Your task to perform on an android device: Show the shopping cart on ebay. Add "usb-a to usb-b" to the cart on ebay Image 0: 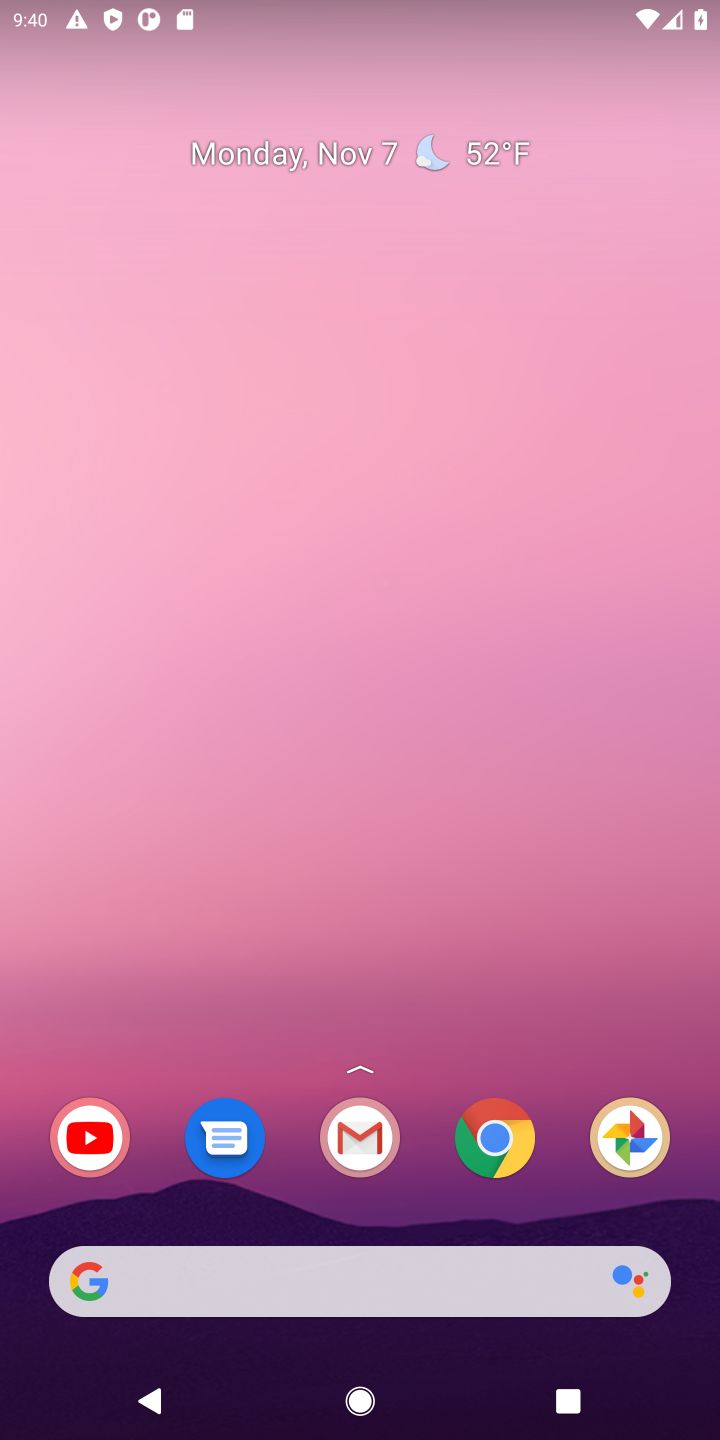
Step 0: click (504, 1153)
Your task to perform on an android device: Show the shopping cart on ebay. Add "usb-a to usb-b" to the cart on ebay Image 1: 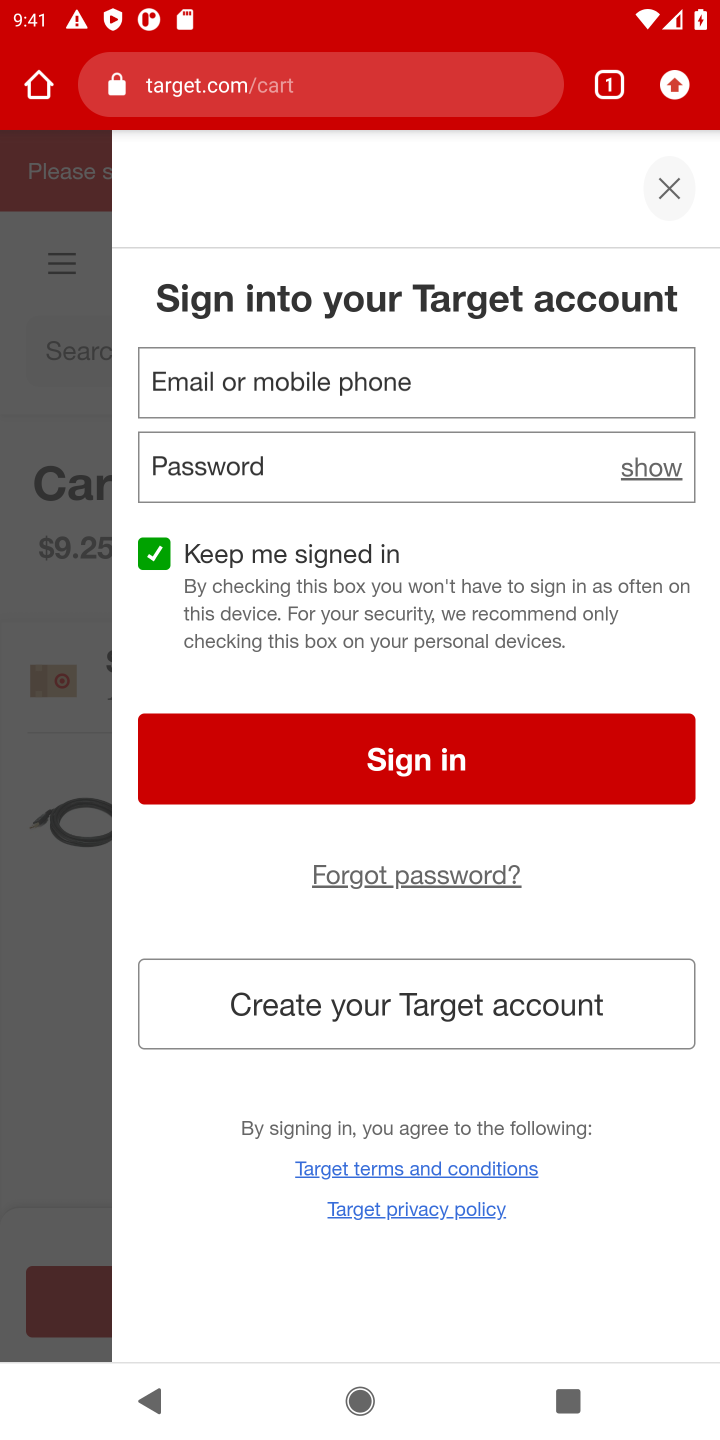
Step 1: click (236, 79)
Your task to perform on an android device: Show the shopping cart on ebay. Add "usb-a to usb-b" to the cart on ebay Image 2: 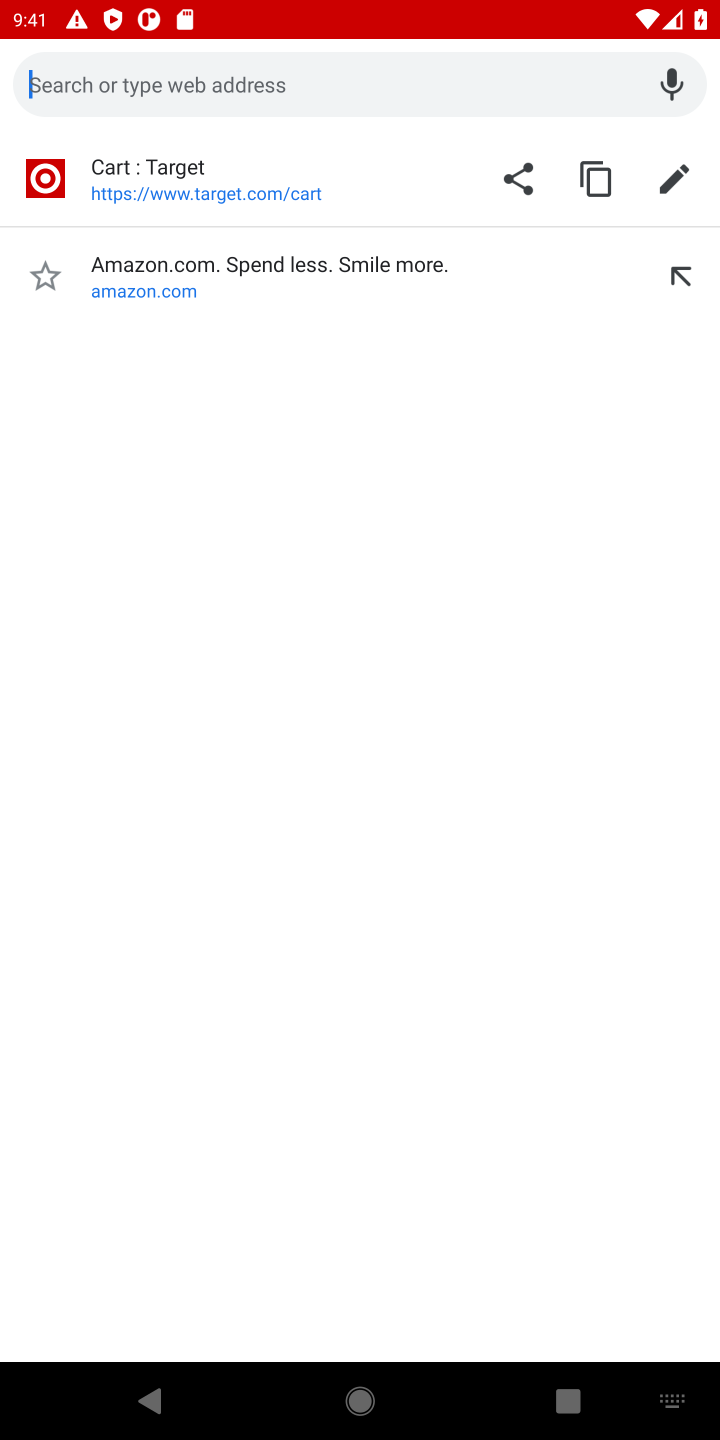
Step 2: type "ebay"
Your task to perform on an android device: Show the shopping cart on ebay. Add "usb-a to usb-b" to the cart on ebay Image 3: 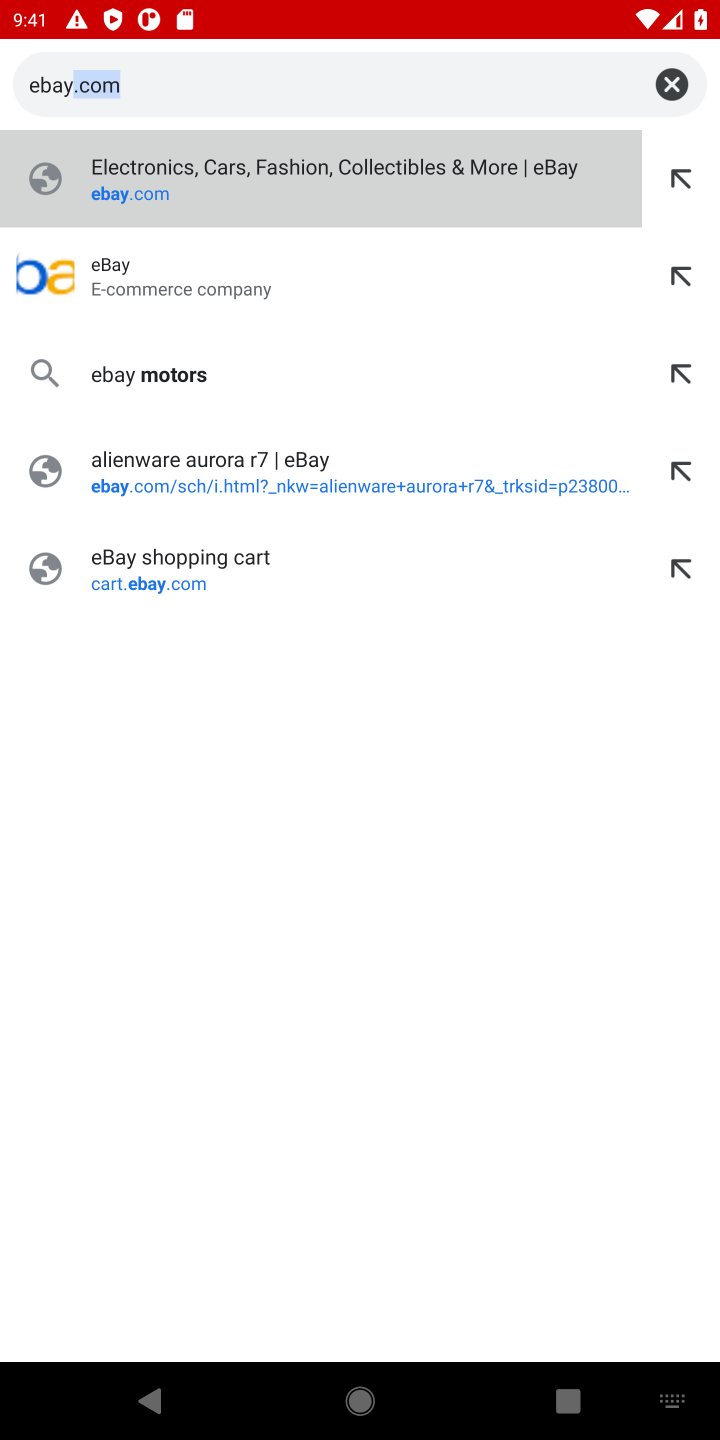
Step 3: type ""
Your task to perform on an android device: Show the shopping cart on ebay. Add "usb-a to usb-b" to the cart on ebay Image 4: 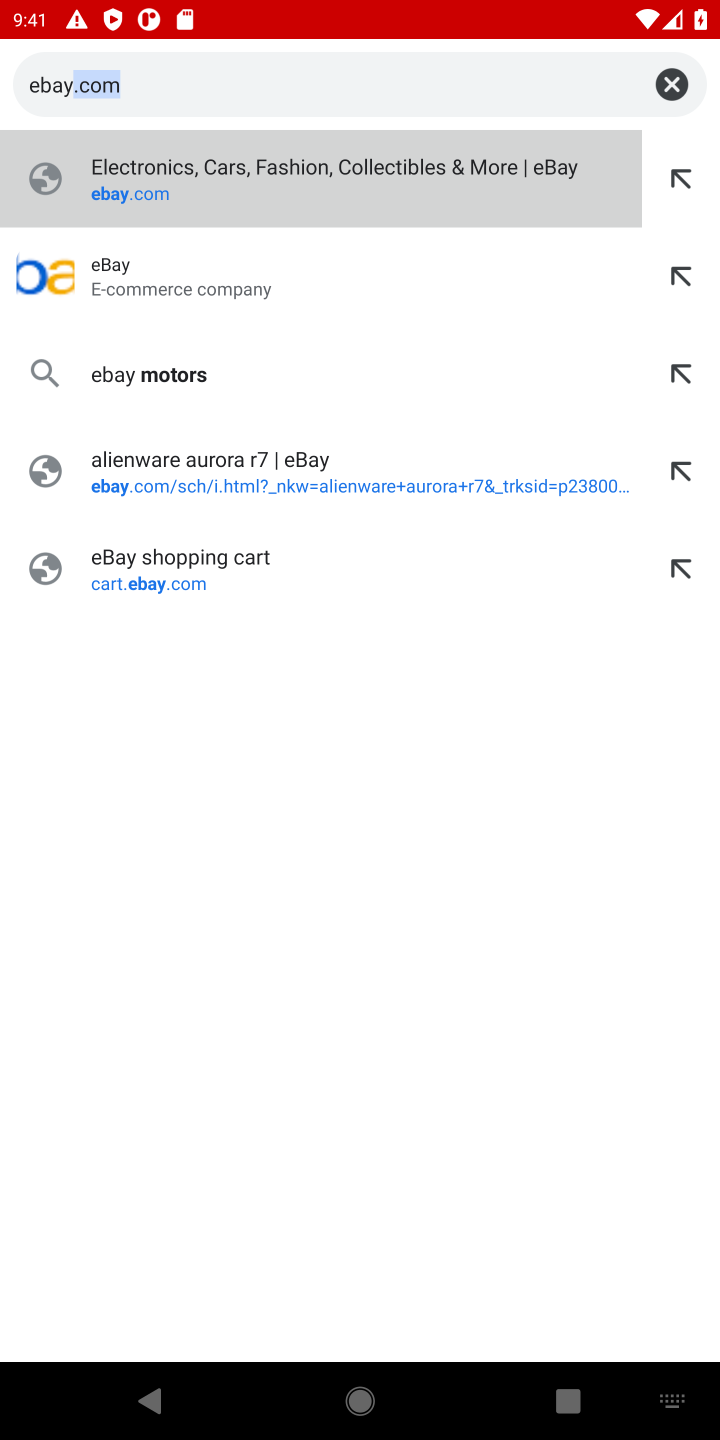
Step 4: click (100, 267)
Your task to perform on an android device: Show the shopping cart on ebay. Add "usb-a to usb-b" to the cart on ebay Image 5: 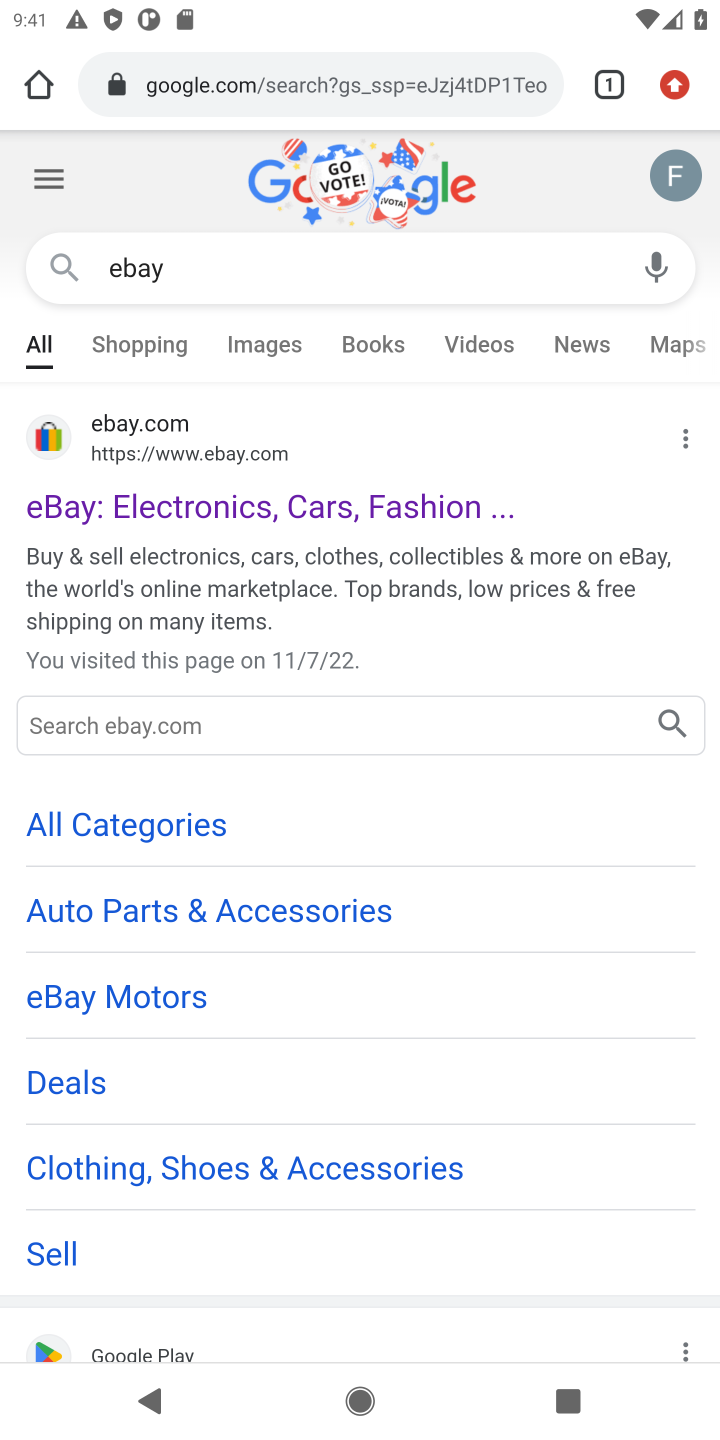
Step 5: click (193, 514)
Your task to perform on an android device: Show the shopping cart on ebay. Add "usb-a to usb-b" to the cart on ebay Image 6: 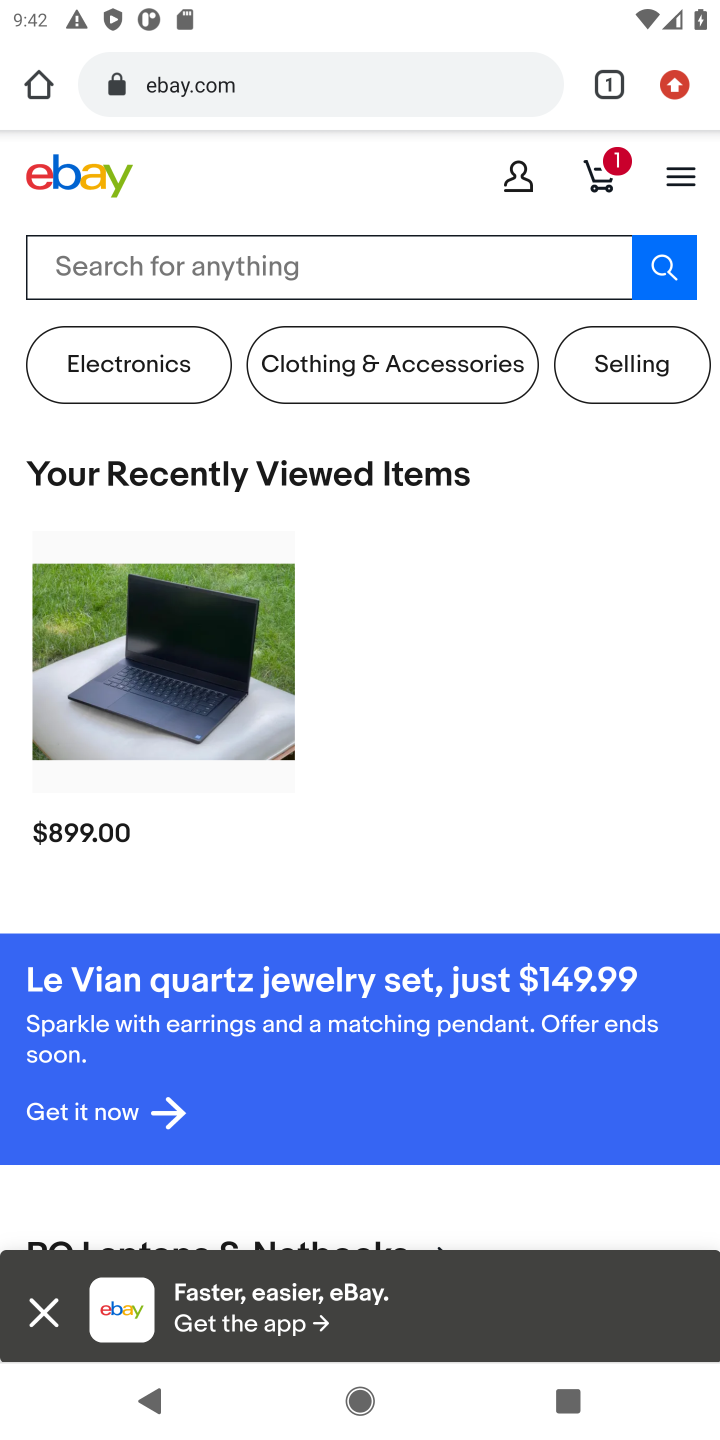
Step 6: drag from (75, 905) to (125, 842)
Your task to perform on an android device: Show the shopping cart on ebay. Add "usb-a to usb-b" to the cart on ebay Image 7: 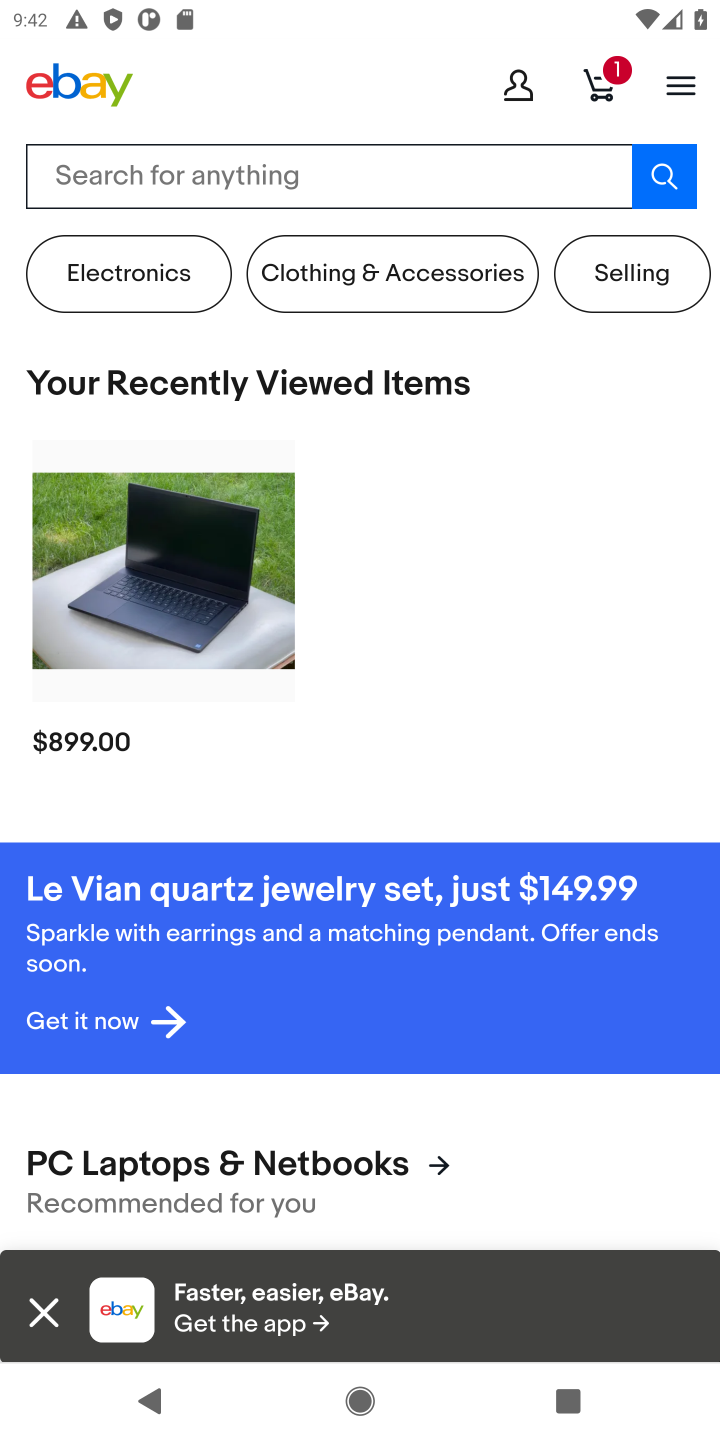
Step 7: click (248, 175)
Your task to perform on an android device: Show the shopping cart on ebay. Add "usb-a to usb-b" to the cart on ebay Image 8: 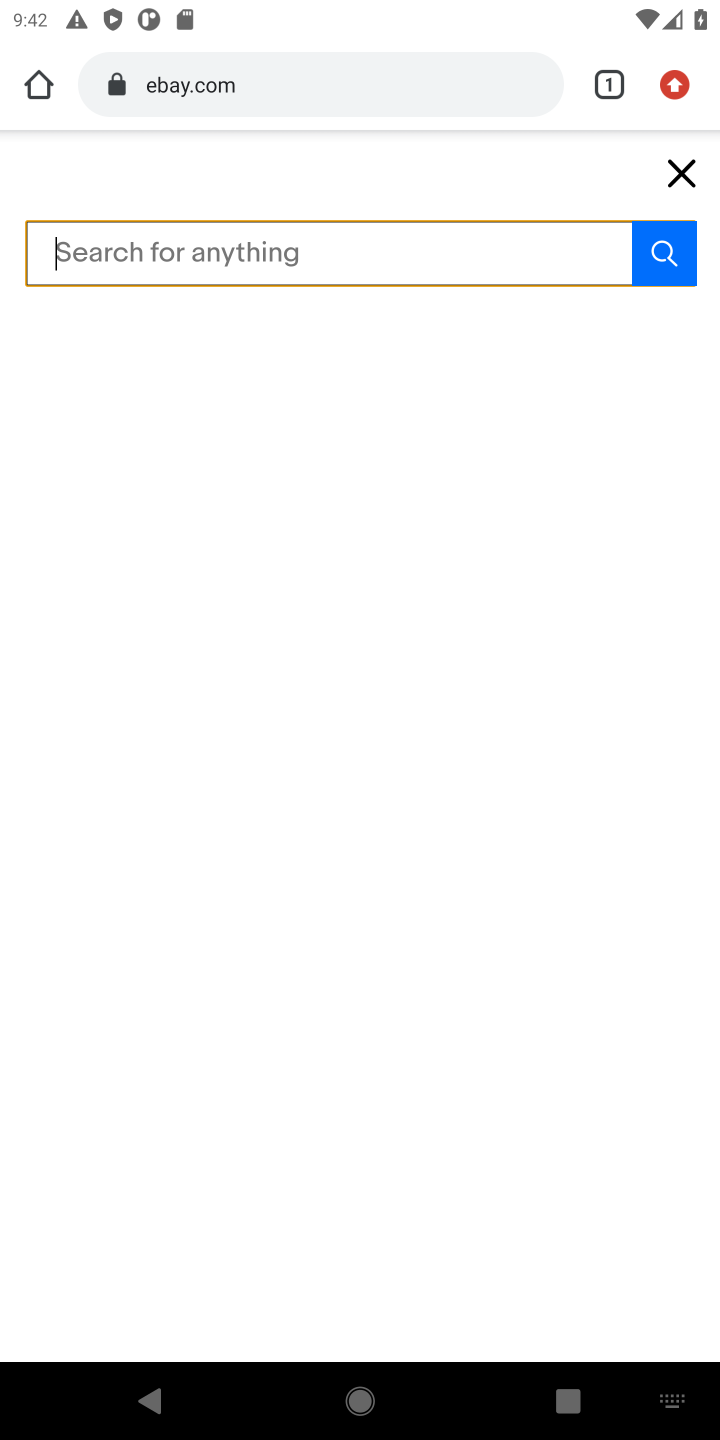
Step 8: type "usb - a to usb b "
Your task to perform on an android device: Show the shopping cart on ebay. Add "usb-a to usb-b" to the cart on ebay Image 9: 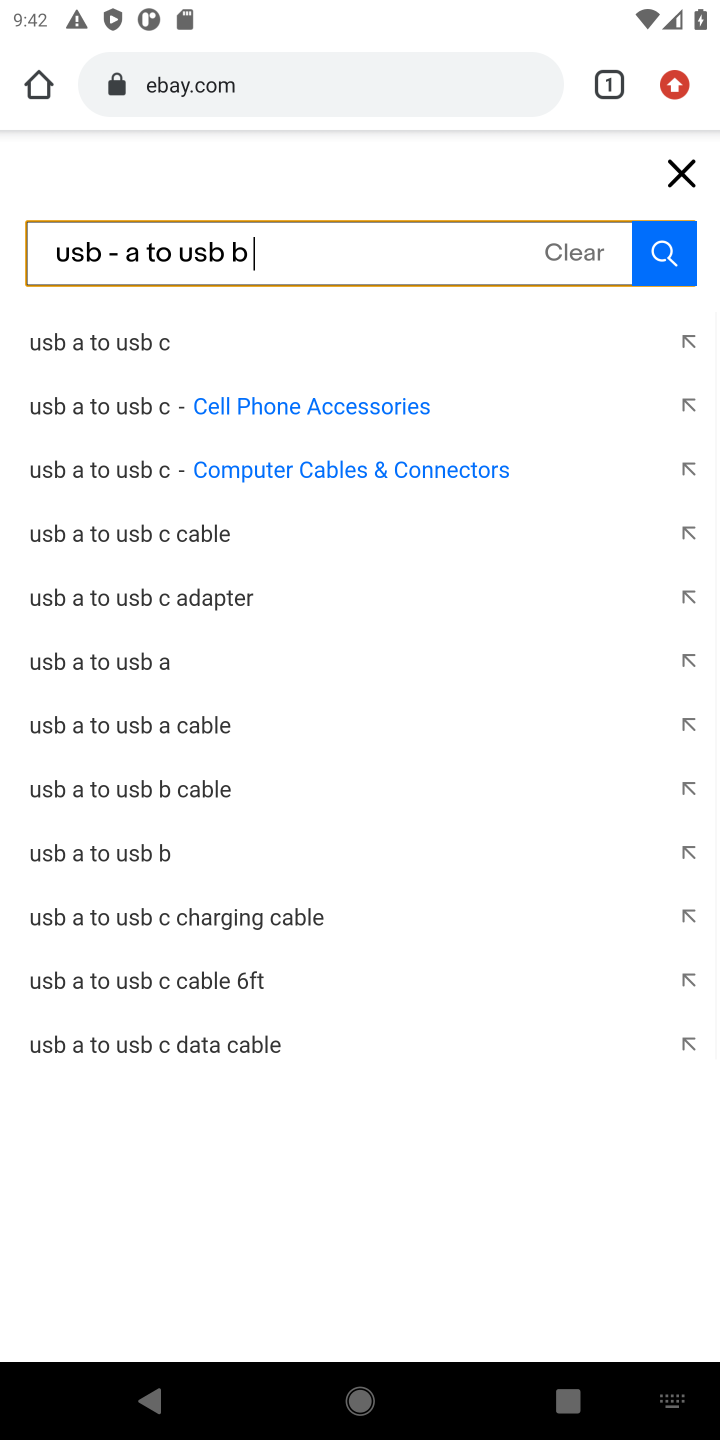
Step 9: type ""
Your task to perform on an android device: Show the shopping cart on ebay. Add "usb-a to usb-b" to the cart on ebay Image 10: 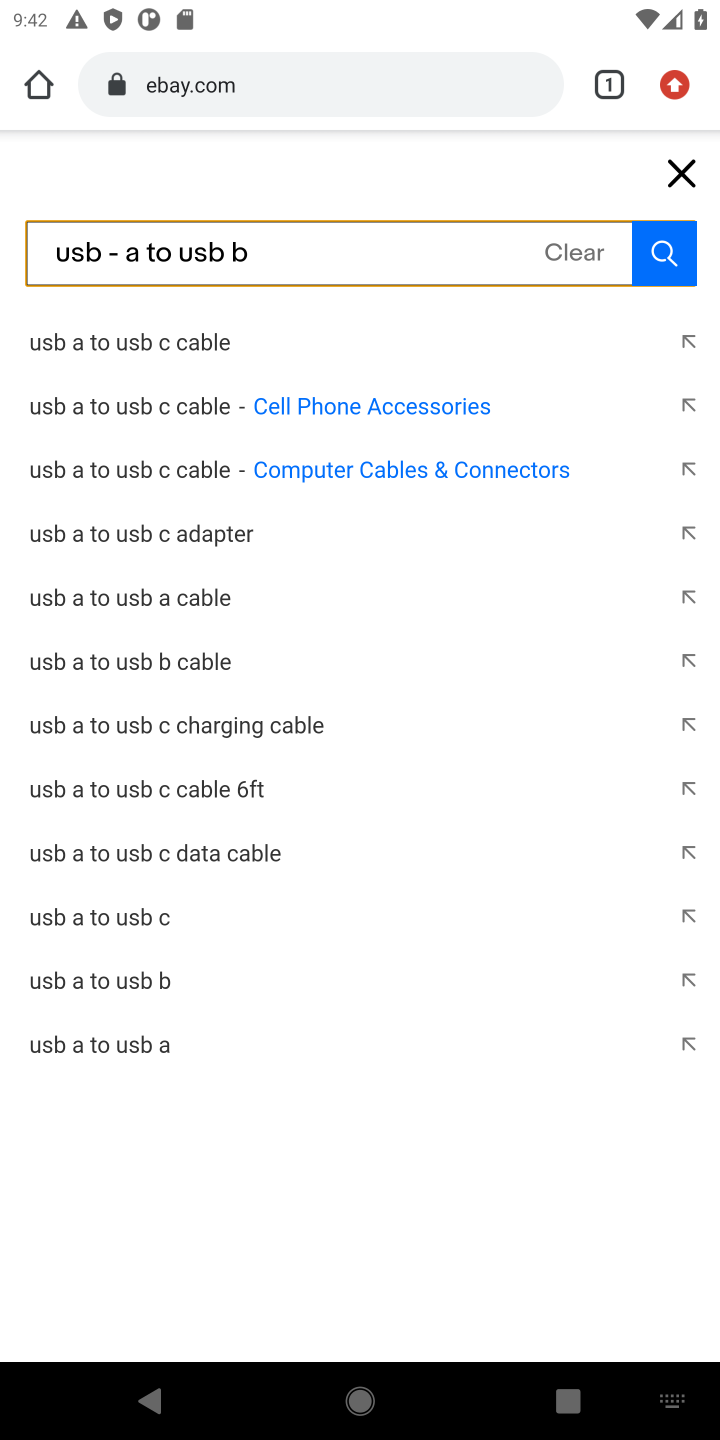
Step 10: click (95, 341)
Your task to perform on an android device: Show the shopping cart on ebay. Add "usb-a to usb-b" to the cart on ebay Image 11: 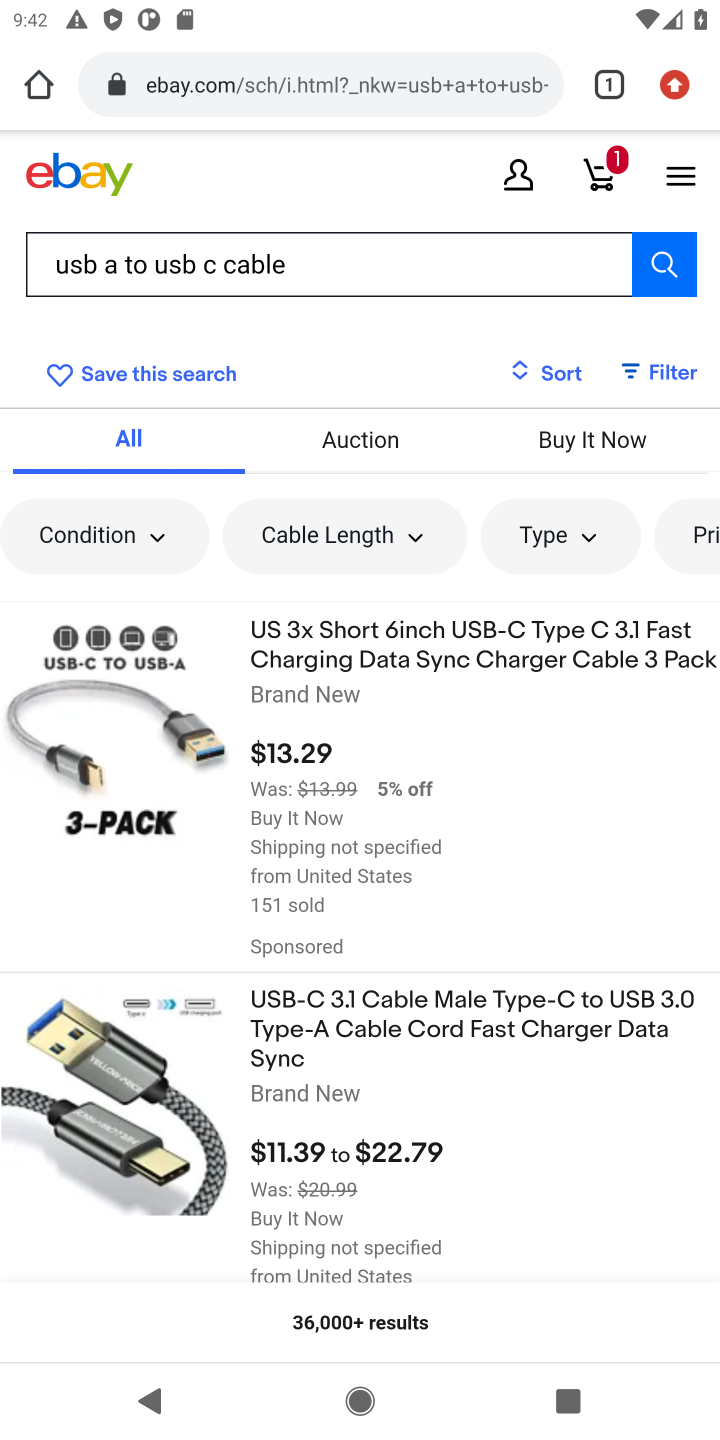
Step 11: click (411, 1012)
Your task to perform on an android device: Show the shopping cart on ebay. Add "usb-a to usb-b" to the cart on ebay Image 12: 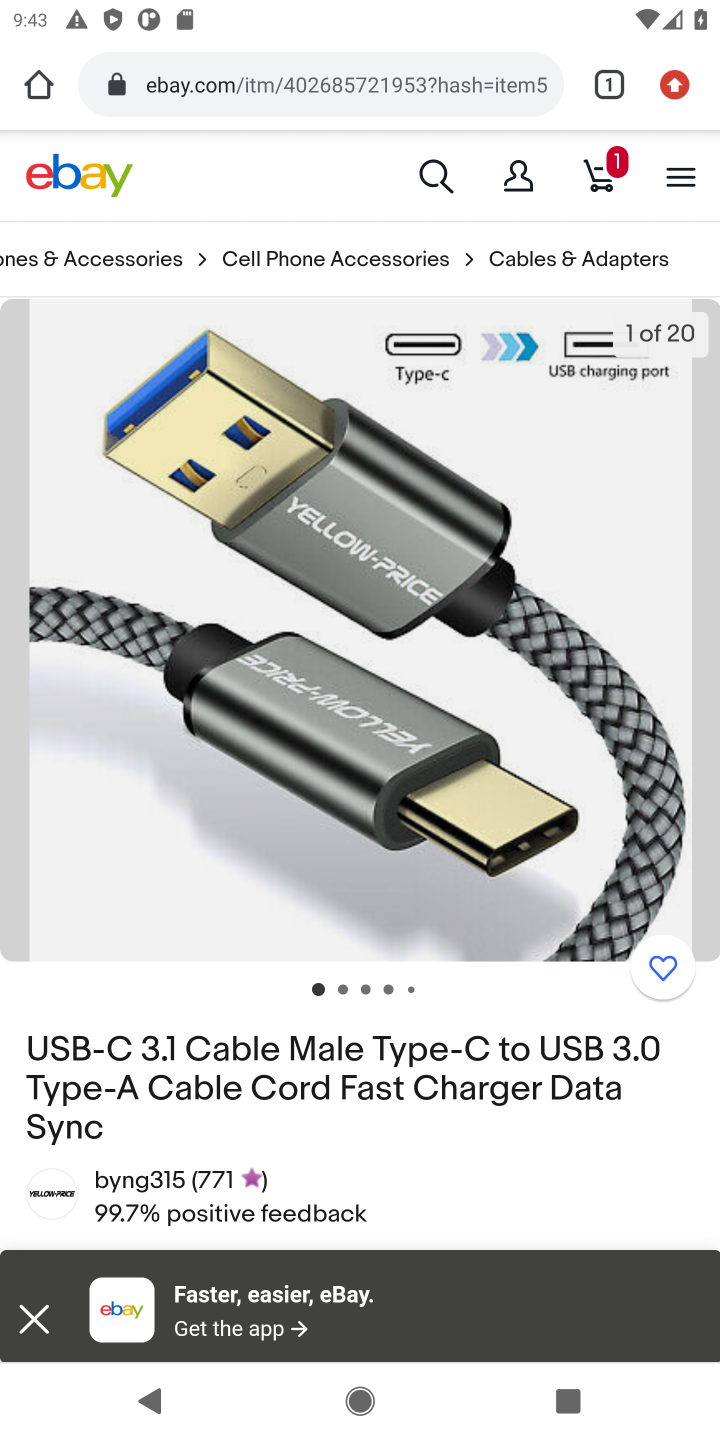
Step 12: click (38, 1330)
Your task to perform on an android device: Show the shopping cart on ebay. Add "usb-a to usb-b" to the cart on ebay Image 13: 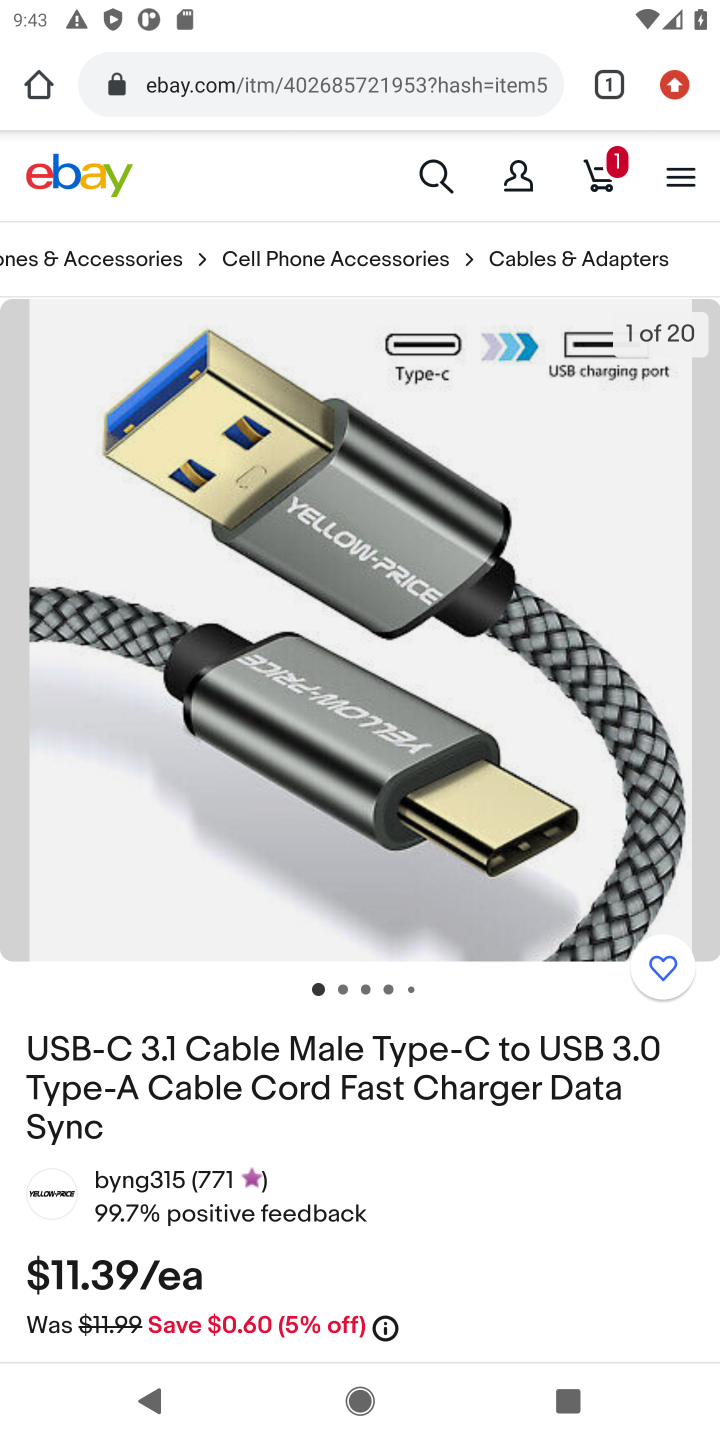
Step 13: drag from (276, 972) to (299, 335)
Your task to perform on an android device: Show the shopping cart on ebay. Add "usb-a to usb-b" to the cart on ebay Image 14: 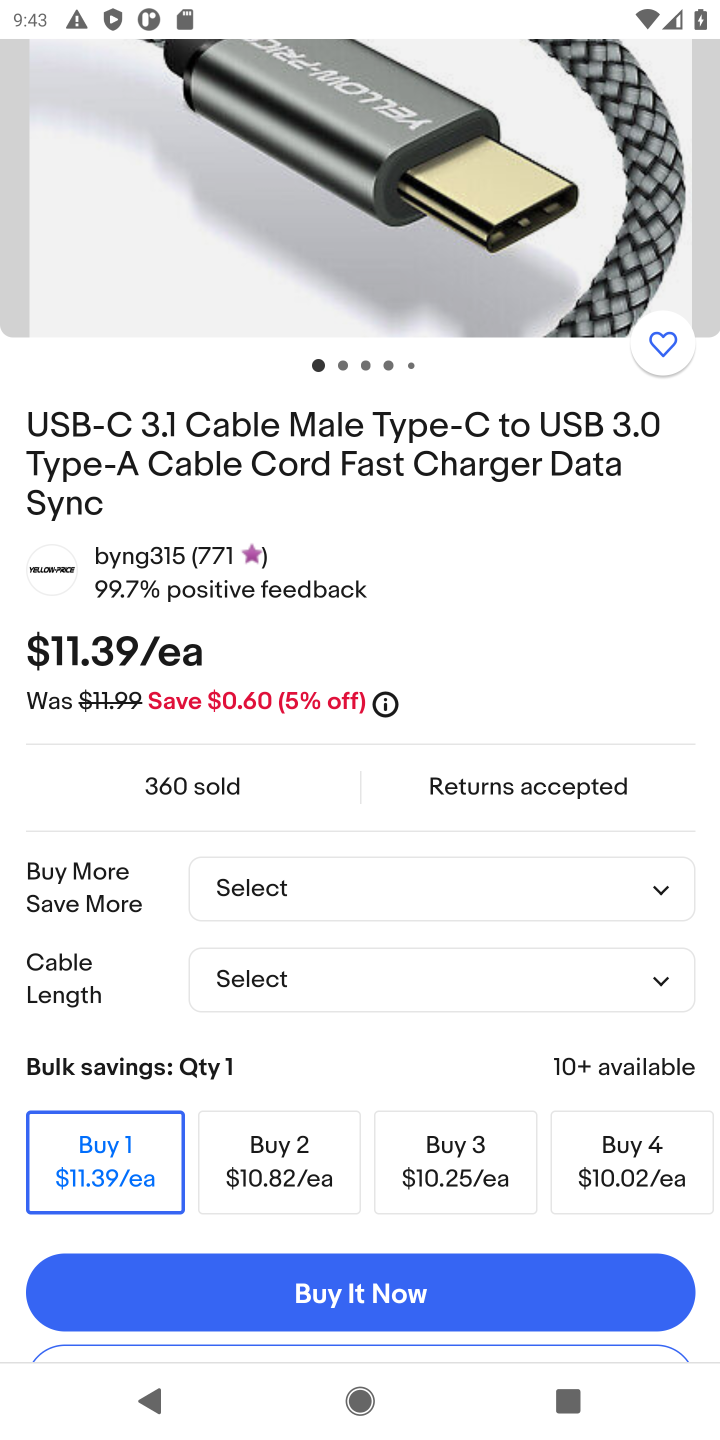
Step 14: drag from (313, 1096) to (361, 658)
Your task to perform on an android device: Show the shopping cart on ebay. Add "usb-a to usb-b" to the cart on ebay Image 15: 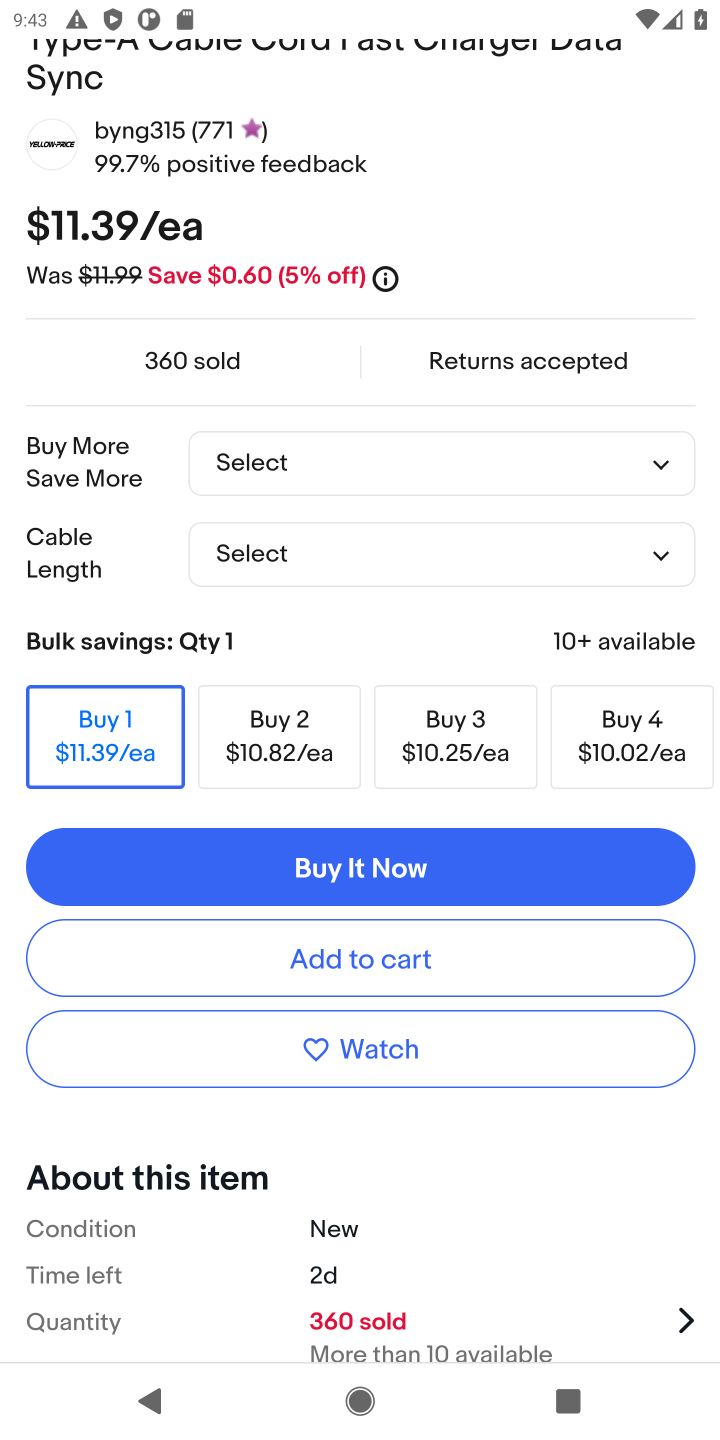
Step 15: click (353, 964)
Your task to perform on an android device: Show the shopping cart on ebay. Add "usb-a to usb-b" to the cart on ebay Image 16: 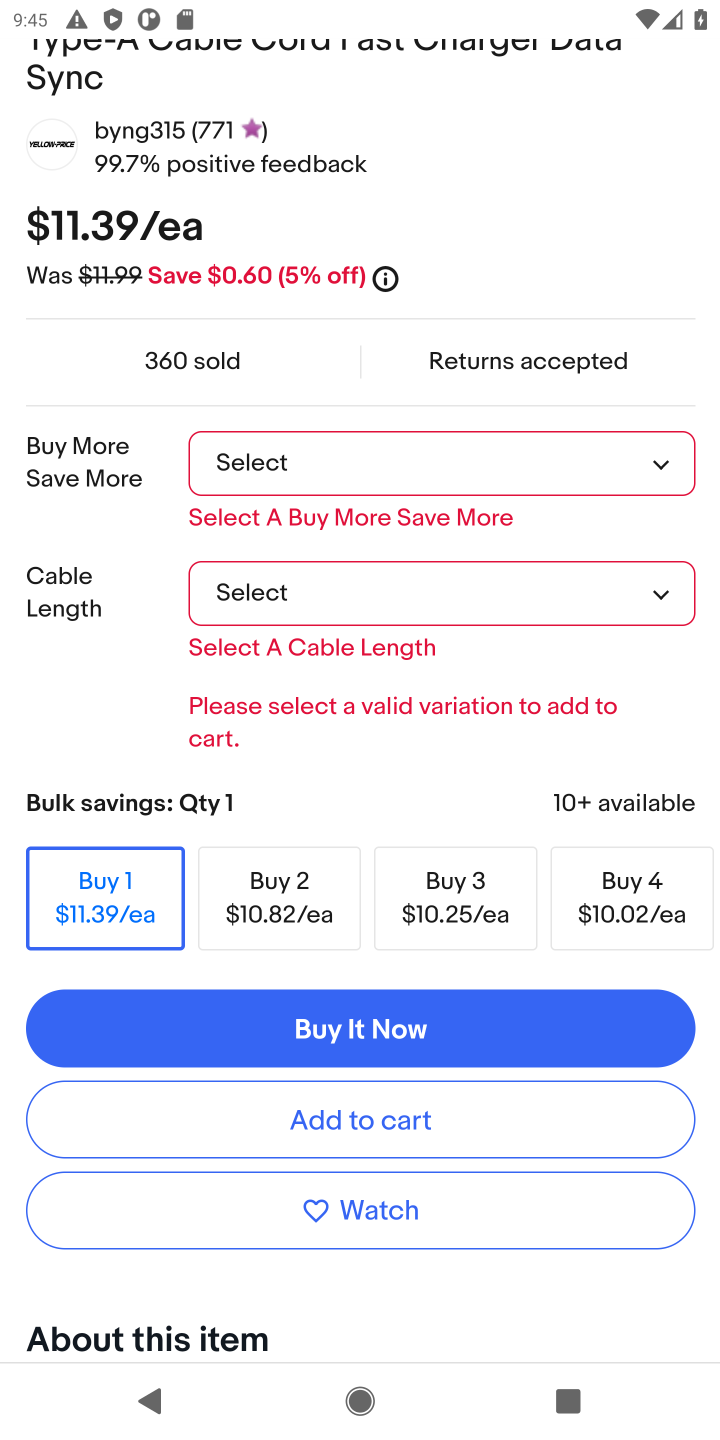
Step 16: click (345, 1097)
Your task to perform on an android device: Show the shopping cart on ebay. Add "usb-a to usb-b" to the cart on ebay Image 17: 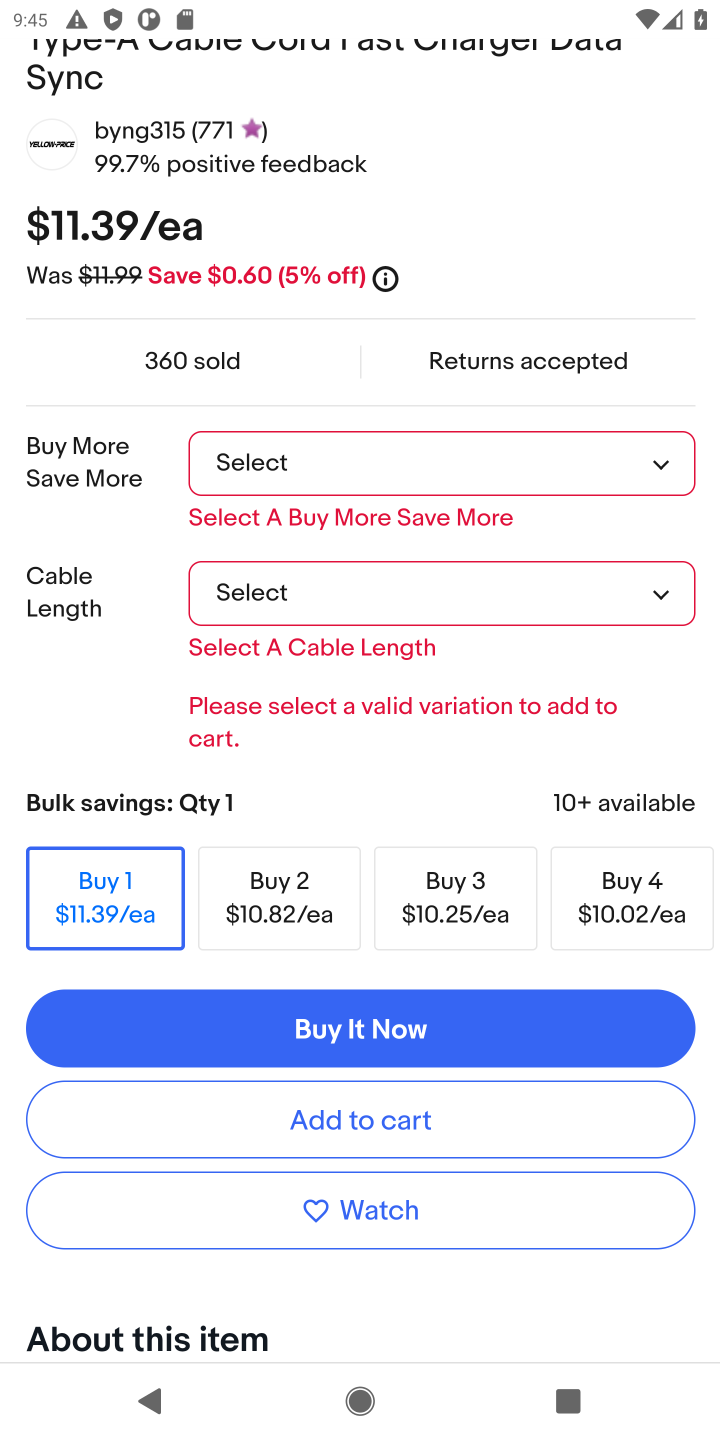
Step 17: click (353, 1118)
Your task to perform on an android device: Show the shopping cart on ebay. Add "usb-a to usb-b" to the cart on ebay Image 18: 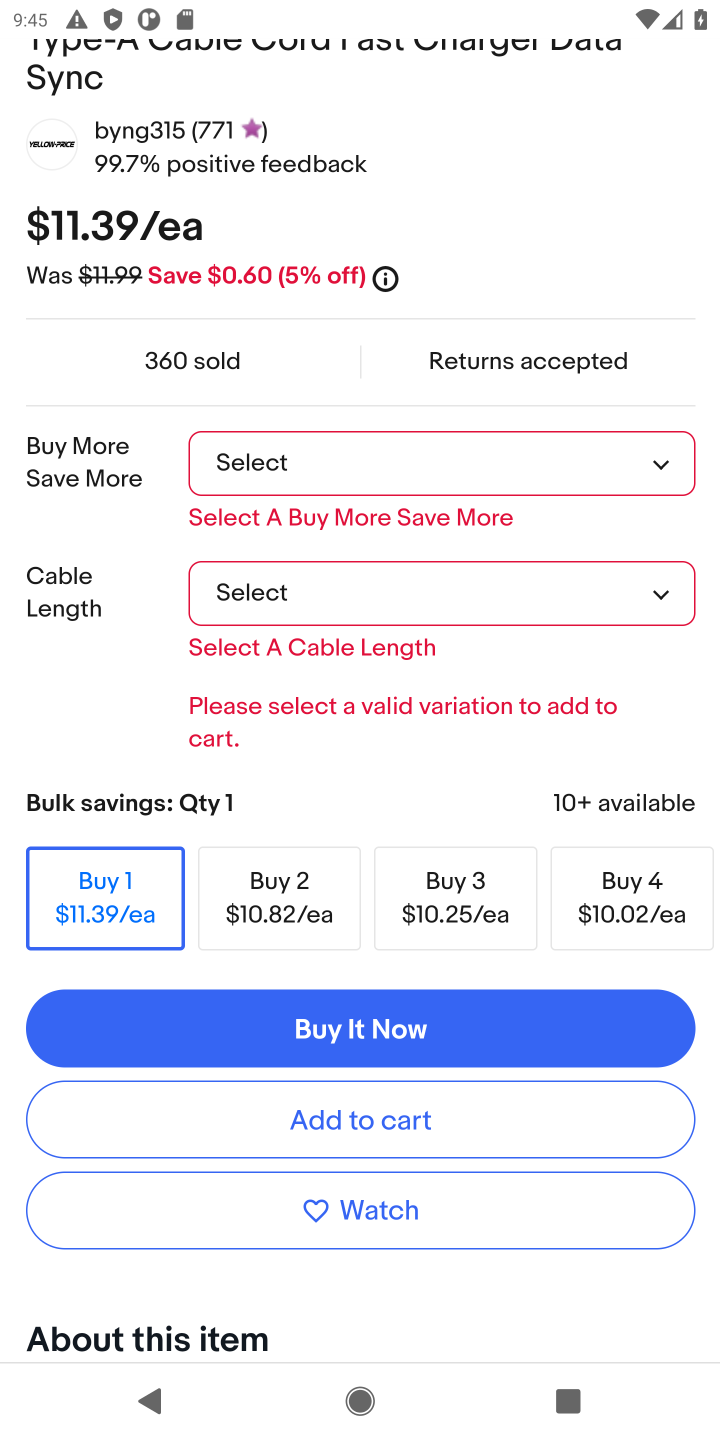
Step 18: click (355, 1120)
Your task to perform on an android device: Show the shopping cart on ebay. Add "usb-a to usb-b" to the cart on ebay Image 19: 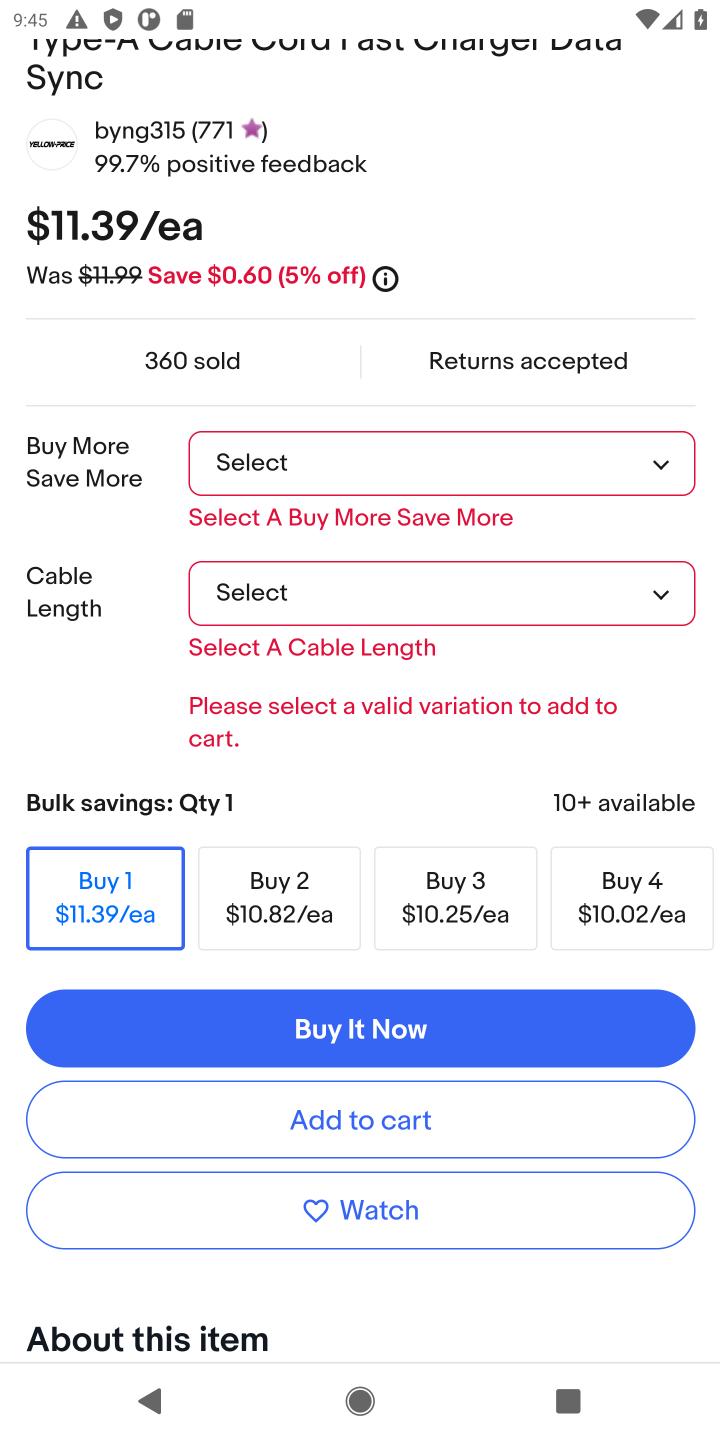
Step 19: task complete